Your task to perform on an android device: open app "Venmo" Image 0: 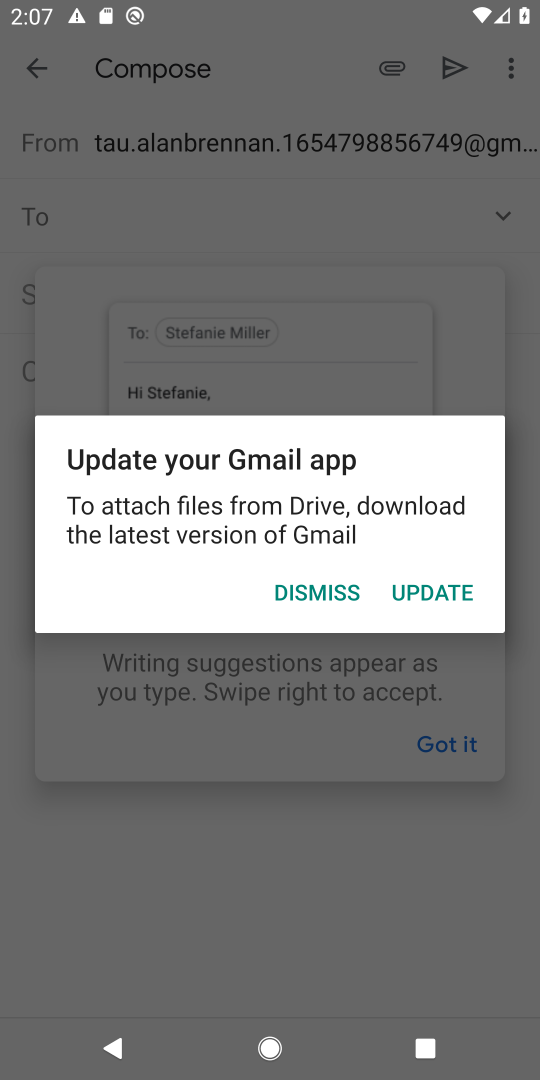
Step 0: press home button
Your task to perform on an android device: open app "Venmo" Image 1: 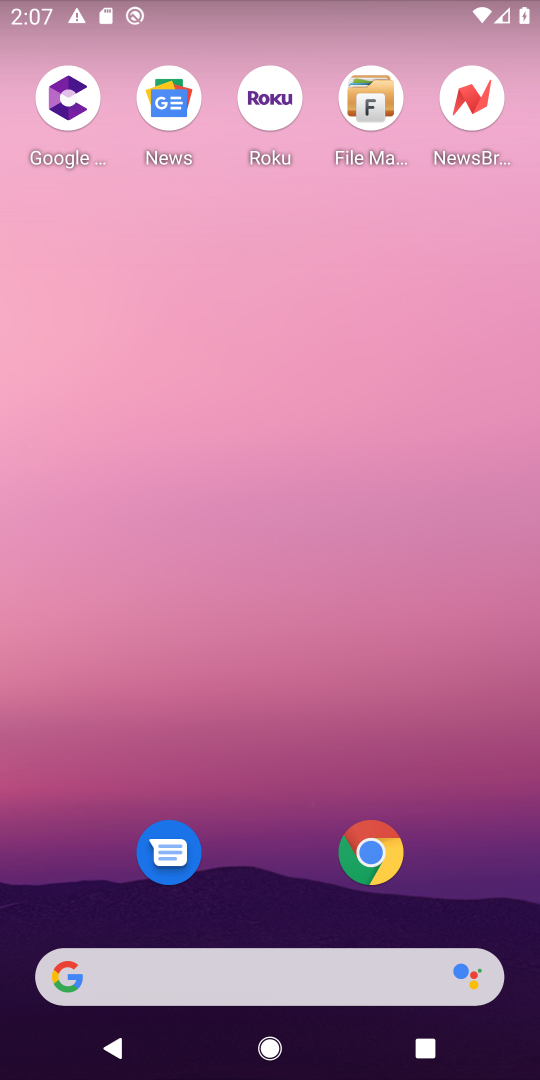
Step 1: drag from (265, 841) to (265, 70)
Your task to perform on an android device: open app "Venmo" Image 2: 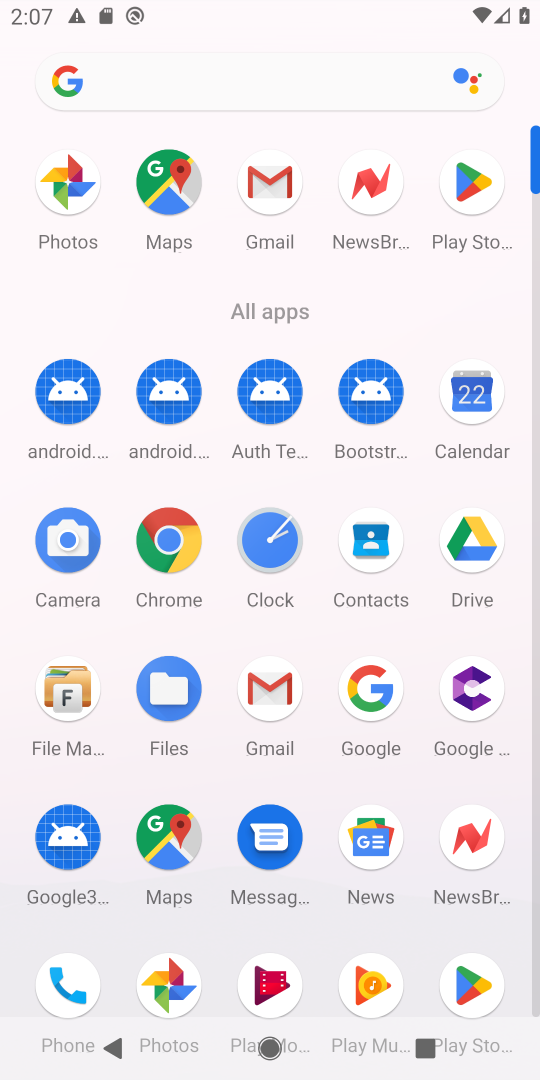
Step 2: click (467, 193)
Your task to perform on an android device: open app "Venmo" Image 3: 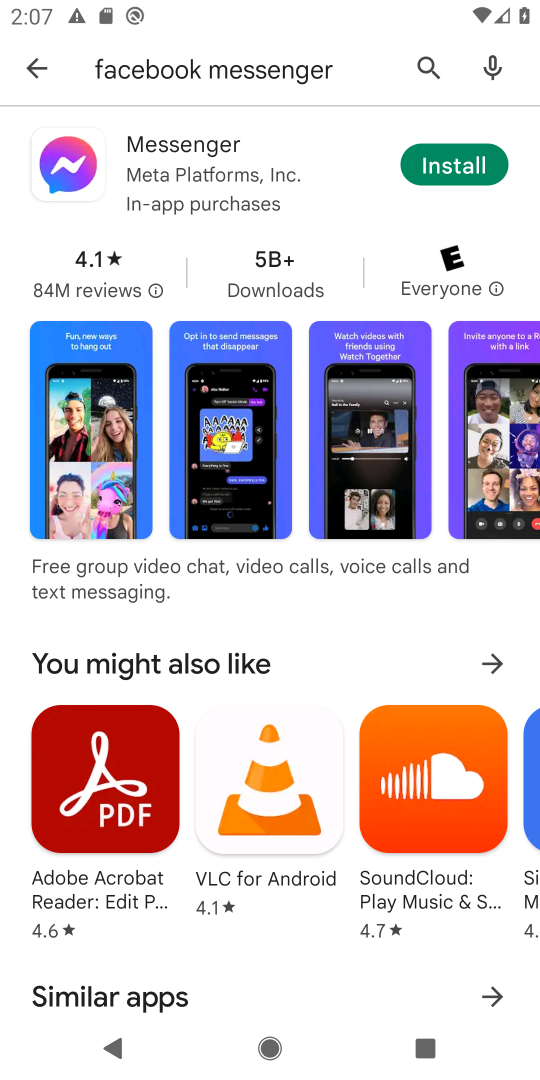
Step 3: click (423, 57)
Your task to perform on an android device: open app "Venmo" Image 4: 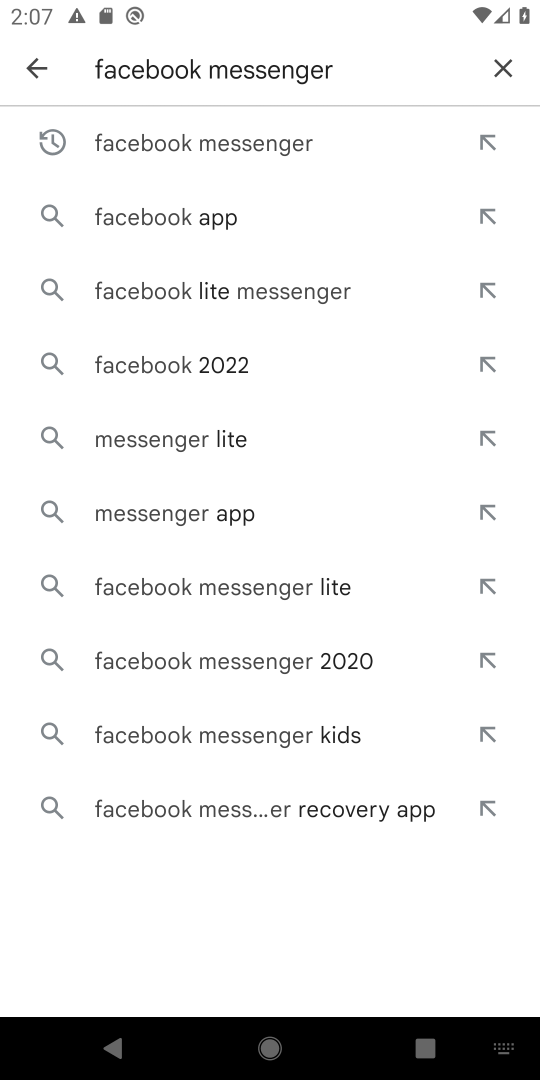
Step 4: click (500, 64)
Your task to perform on an android device: open app "Venmo" Image 5: 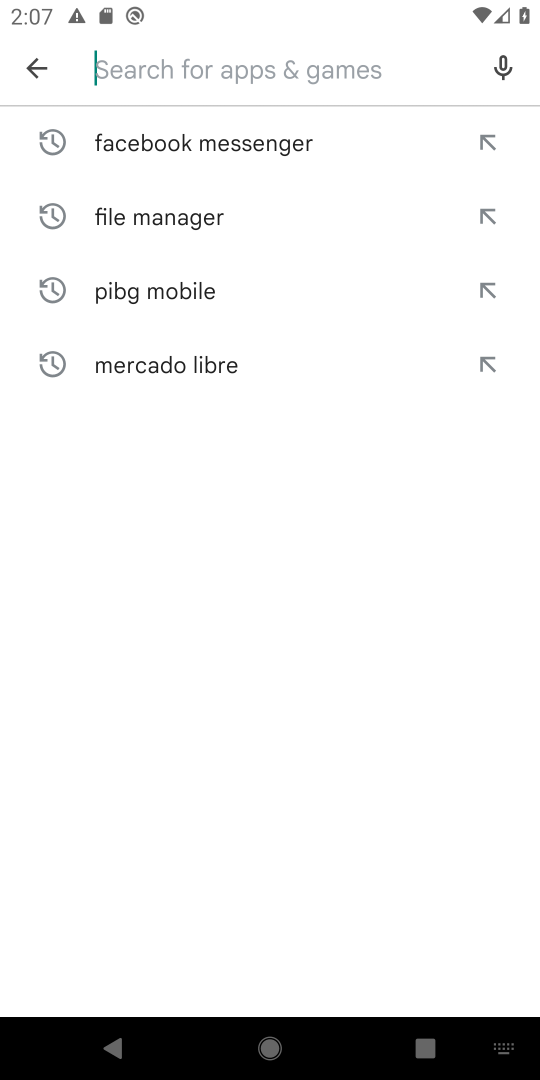
Step 5: type "Venmo"
Your task to perform on an android device: open app "Venmo" Image 6: 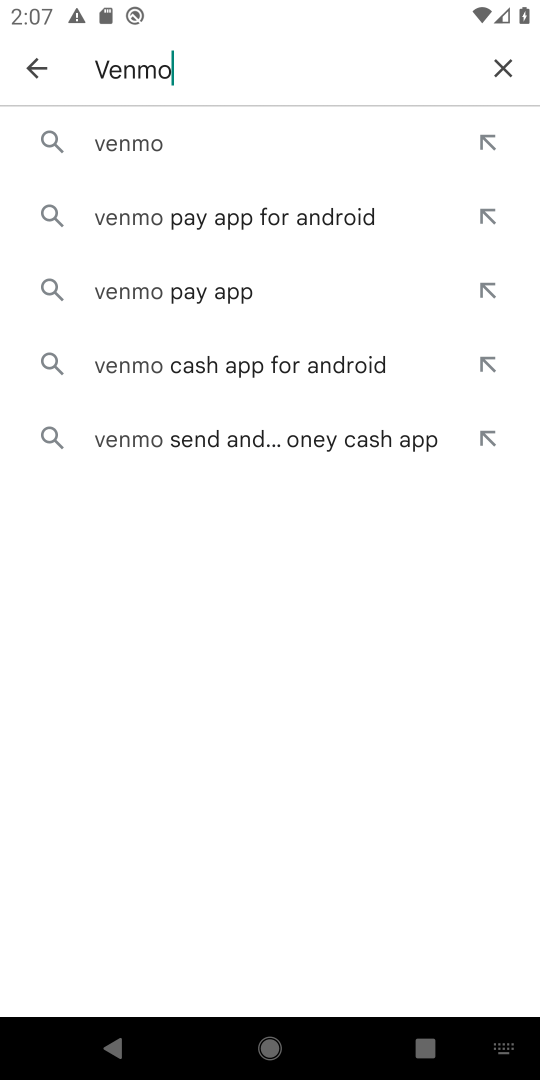
Step 6: click (154, 136)
Your task to perform on an android device: open app "Venmo" Image 7: 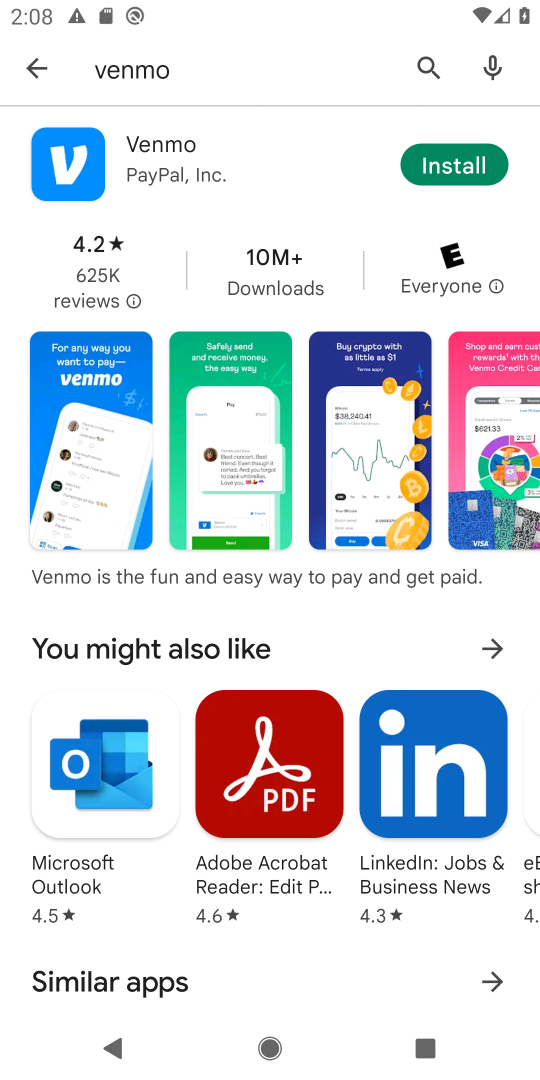
Step 7: task complete